Your task to perform on an android device: toggle wifi Image 0: 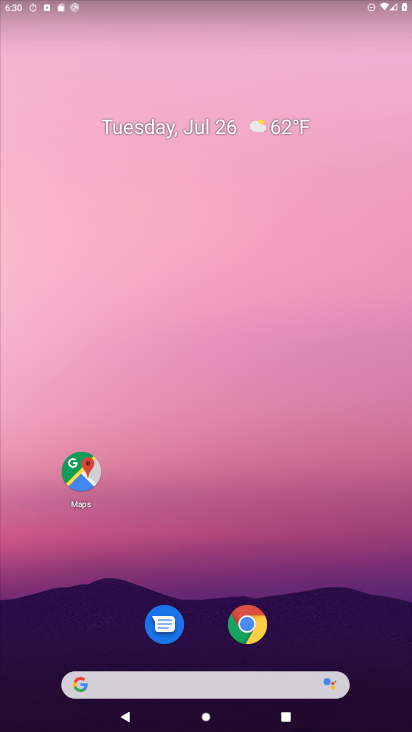
Step 0: drag from (287, 684) to (408, 38)
Your task to perform on an android device: toggle wifi Image 1: 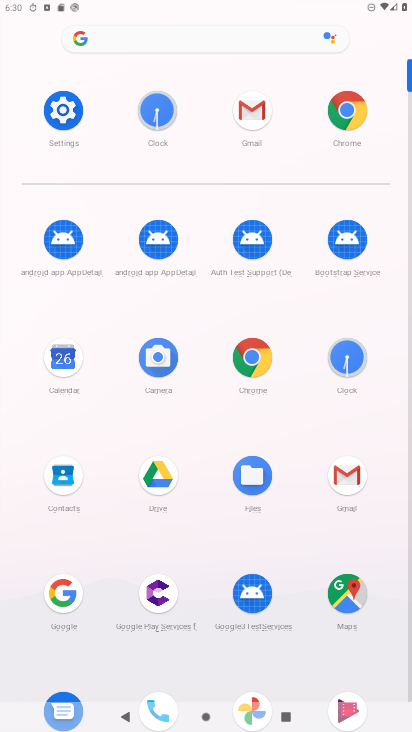
Step 1: click (59, 109)
Your task to perform on an android device: toggle wifi Image 2: 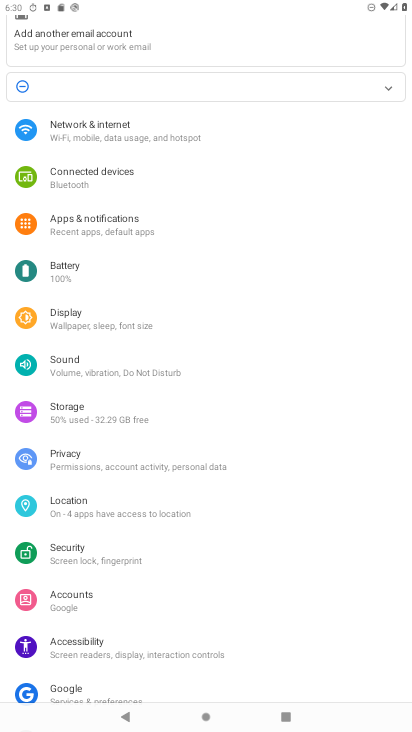
Step 2: click (174, 142)
Your task to perform on an android device: toggle wifi Image 3: 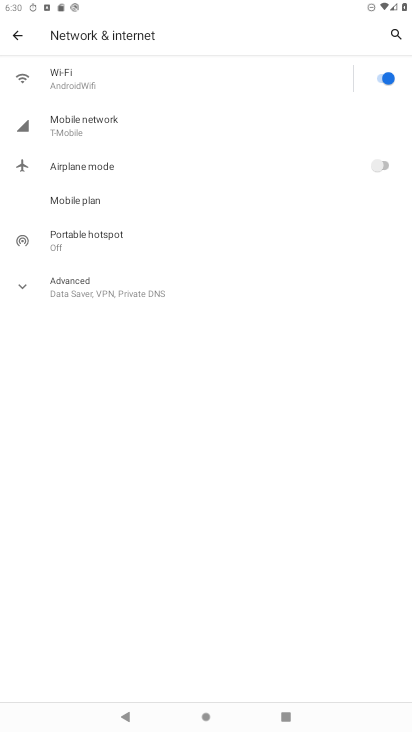
Step 3: click (393, 80)
Your task to perform on an android device: toggle wifi Image 4: 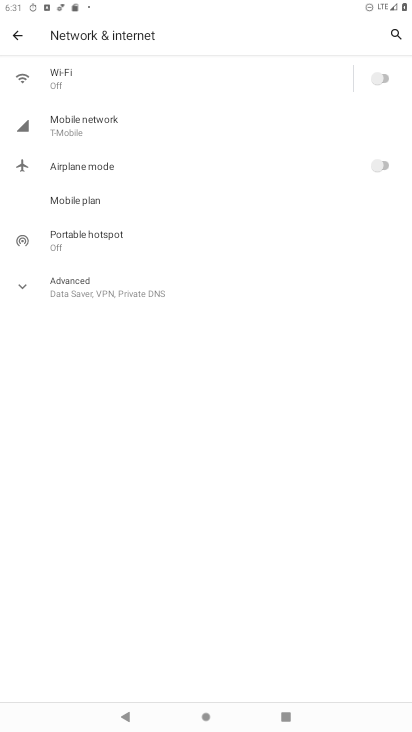
Step 4: task complete